Your task to perform on an android device: Open calendar and show me the second week of next month Image 0: 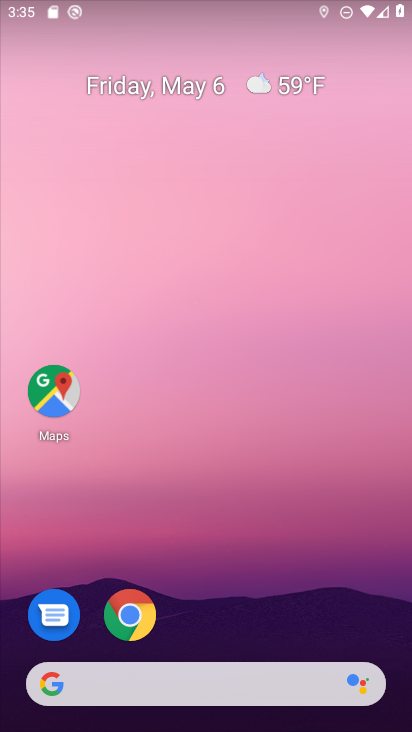
Step 0: drag from (298, 584) to (332, 73)
Your task to perform on an android device: Open calendar and show me the second week of next month Image 1: 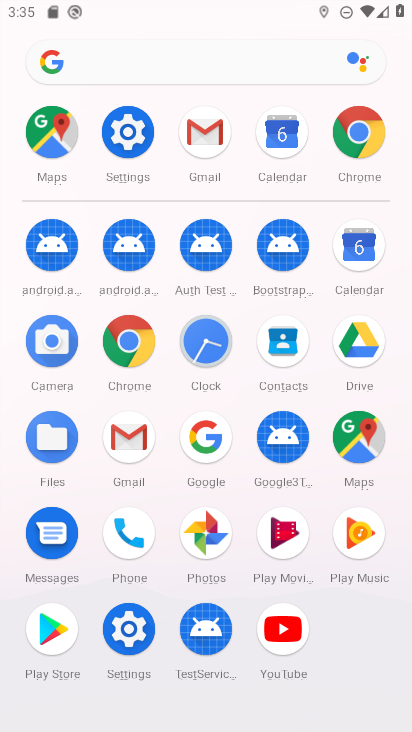
Step 1: click (360, 233)
Your task to perform on an android device: Open calendar and show me the second week of next month Image 2: 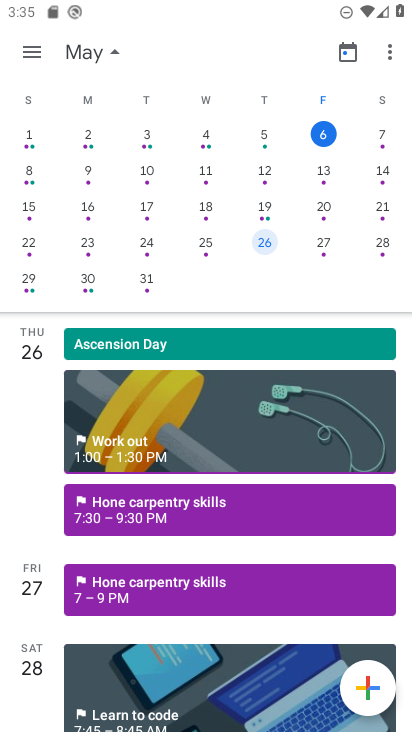
Step 2: click (260, 172)
Your task to perform on an android device: Open calendar and show me the second week of next month Image 3: 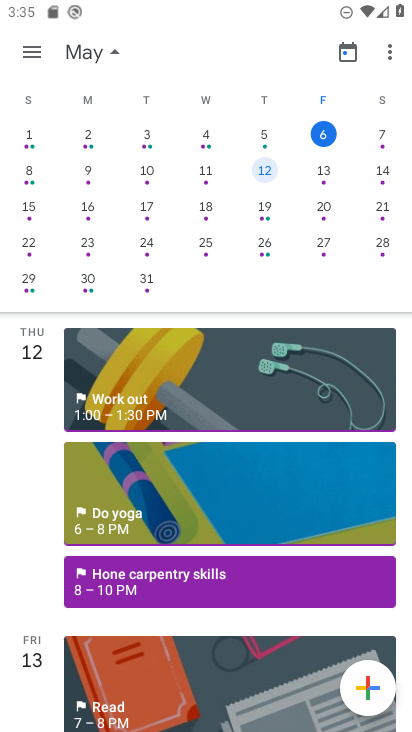
Step 3: task complete